Your task to perform on an android device: Go to Amazon Image 0: 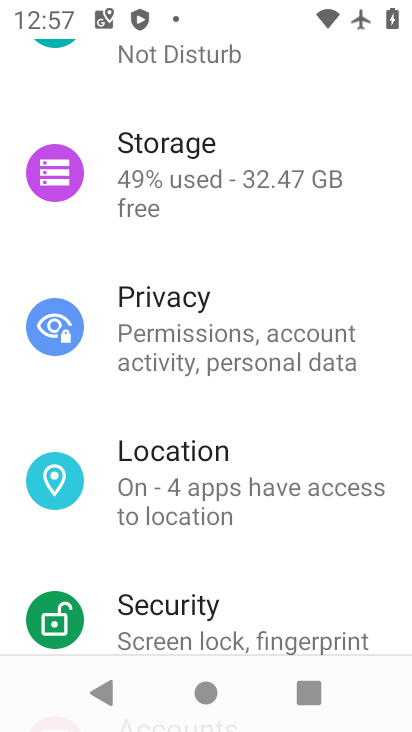
Step 0: press home button
Your task to perform on an android device: Go to Amazon Image 1: 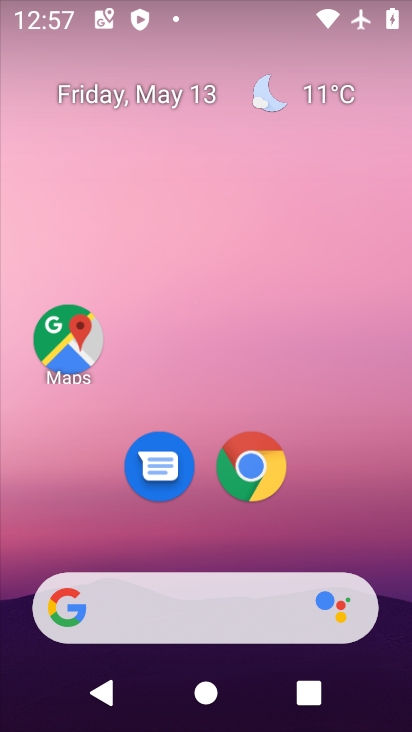
Step 1: click (246, 466)
Your task to perform on an android device: Go to Amazon Image 2: 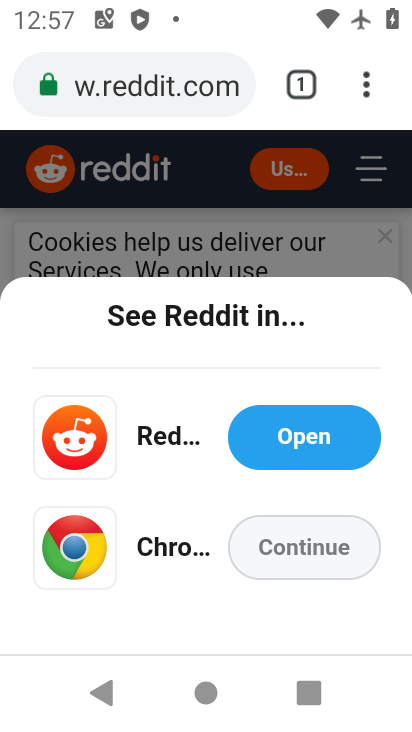
Step 2: click (137, 94)
Your task to perform on an android device: Go to Amazon Image 3: 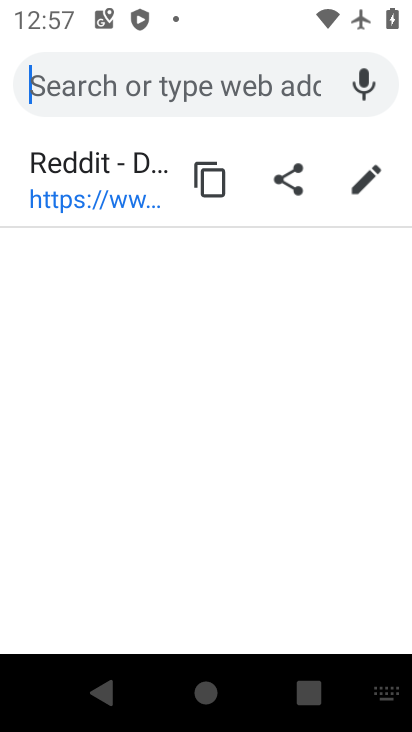
Step 3: type "amazon"
Your task to perform on an android device: Go to Amazon Image 4: 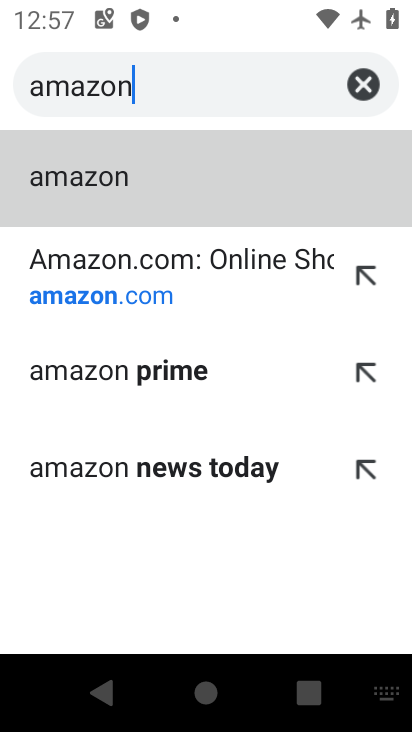
Step 4: click (134, 161)
Your task to perform on an android device: Go to Amazon Image 5: 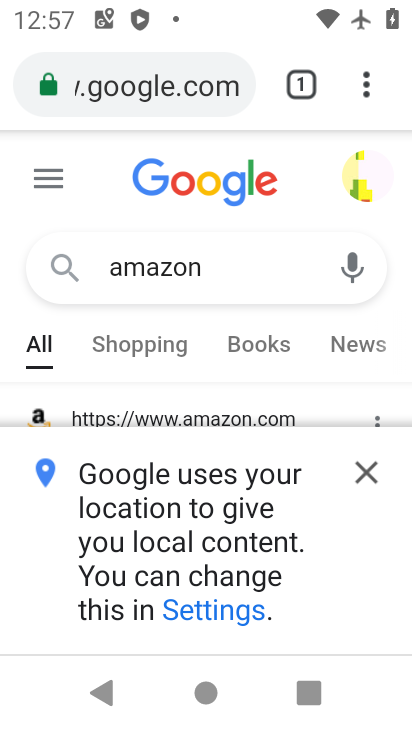
Step 5: drag from (149, 377) to (185, 180)
Your task to perform on an android device: Go to Amazon Image 6: 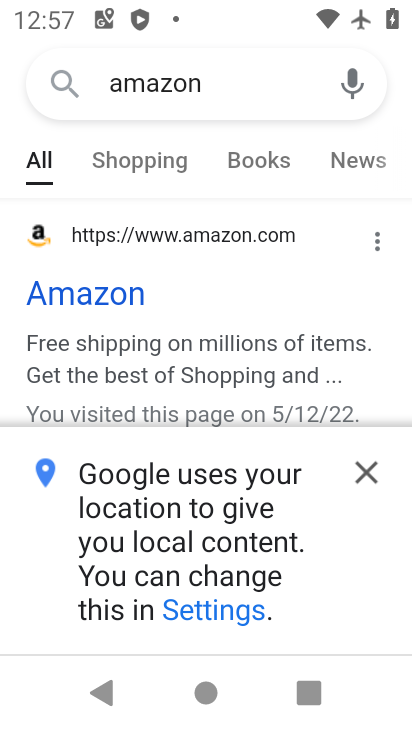
Step 6: click (101, 294)
Your task to perform on an android device: Go to Amazon Image 7: 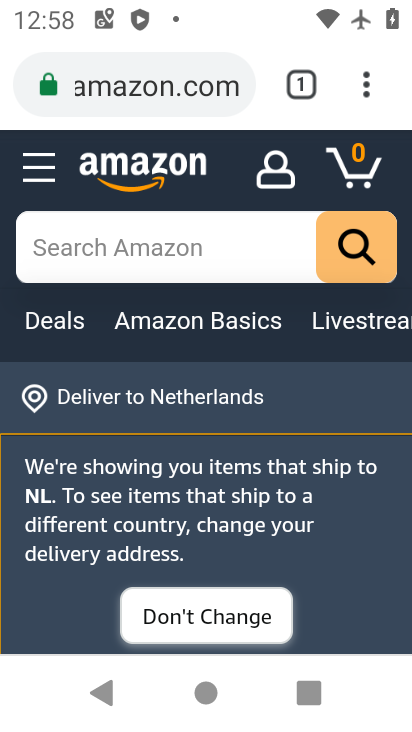
Step 7: task complete